Your task to perform on an android device: change notification settings in the gmail app Image 0: 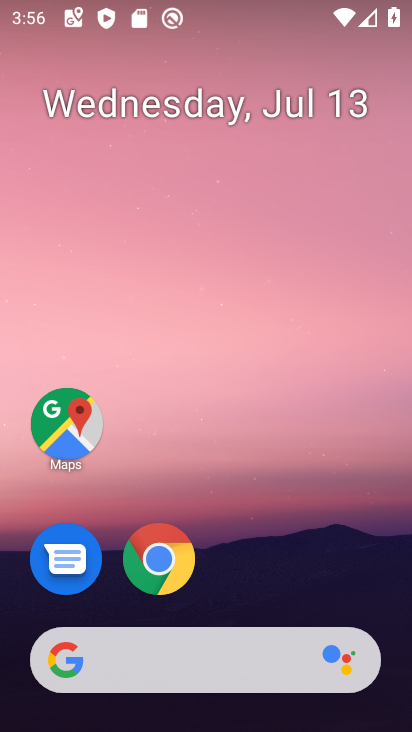
Step 0: drag from (371, 588) to (250, 114)
Your task to perform on an android device: change notification settings in the gmail app Image 1: 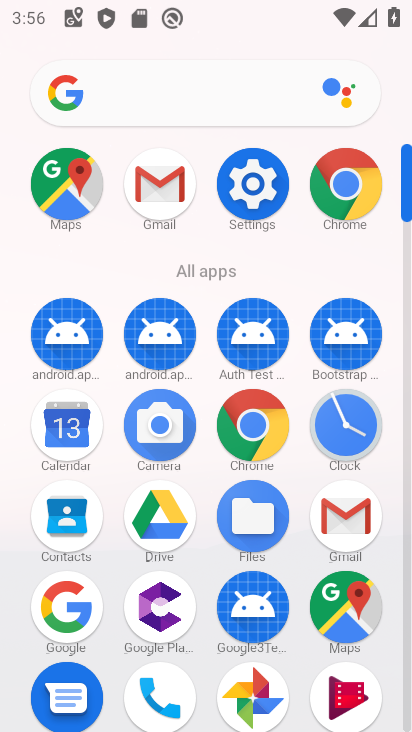
Step 1: click (147, 186)
Your task to perform on an android device: change notification settings in the gmail app Image 2: 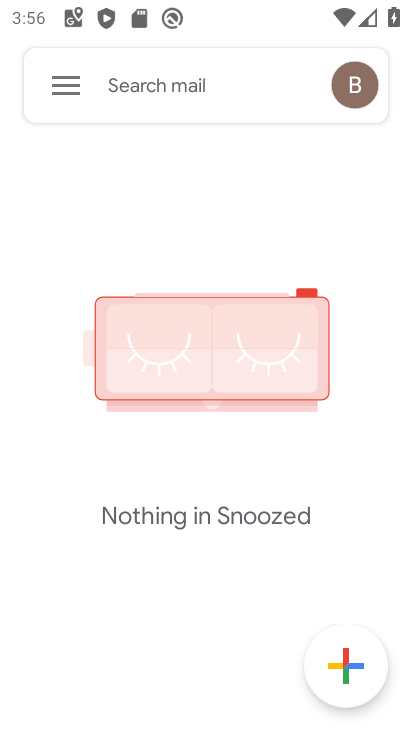
Step 2: click (63, 73)
Your task to perform on an android device: change notification settings in the gmail app Image 3: 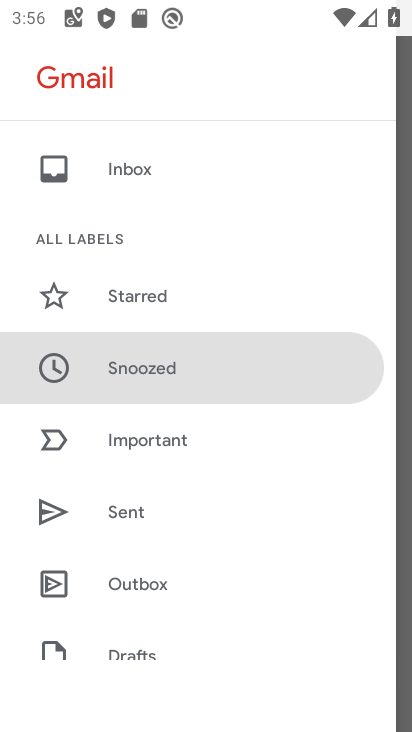
Step 3: drag from (227, 602) to (185, 238)
Your task to perform on an android device: change notification settings in the gmail app Image 4: 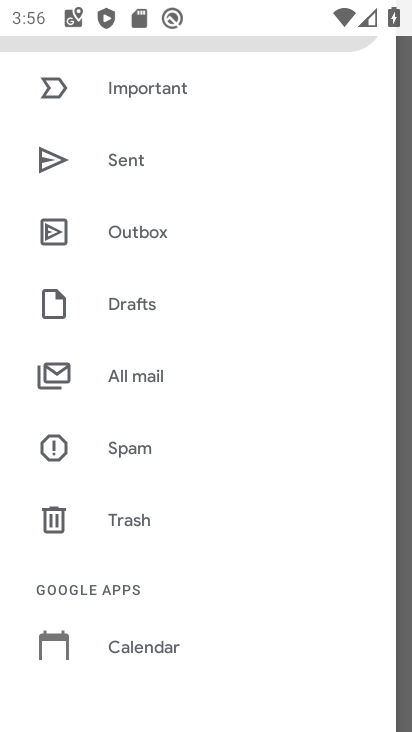
Step 4: drag from (199, 614) to (207, 287)
Your task to perform on an android device: change notification settings in the gmail app Image 5: 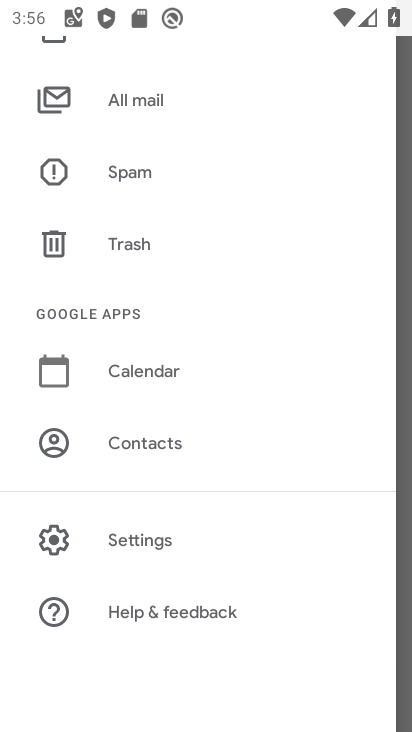
Step 5: click (176, 537)
Your task to perform on an android device: change notification settings in the gmail app Image 6: 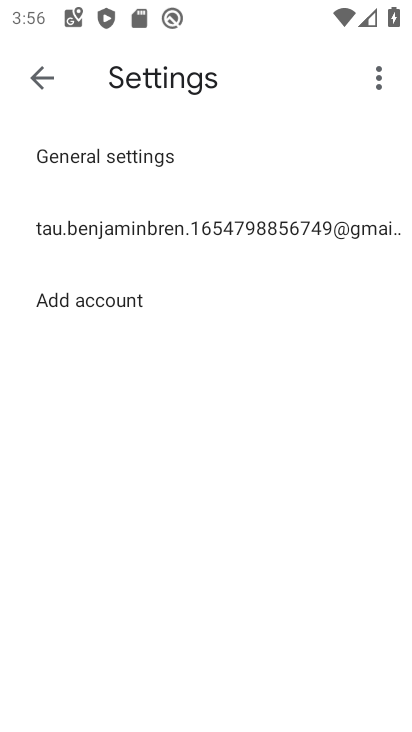
Step 6: click (181, 225)
Your task to perform on an android device: change notification settings in the gmail app Image 7: 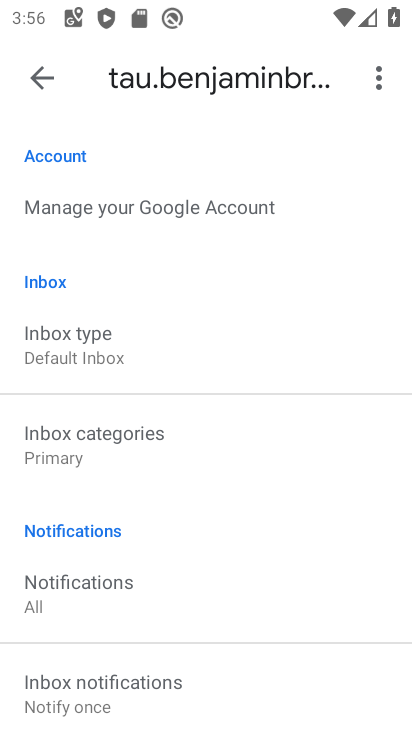
Step 7: drag from (193, 598) to (137, 143)
Your task to perform on an android device: change notification settings in the gmail app Image 8: 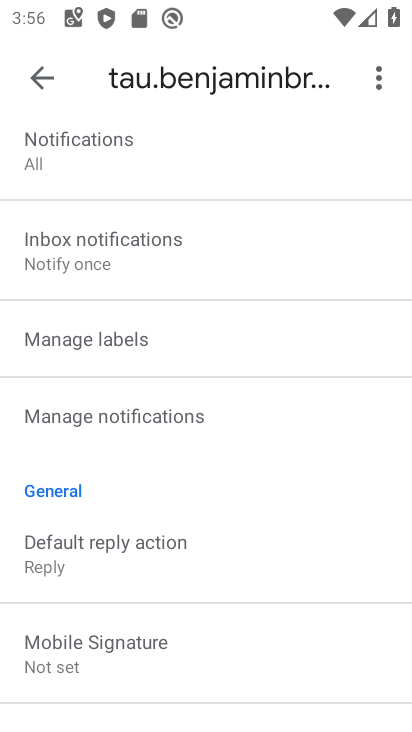
Step 8: click (165, 419)
Your task to perform on an android device: change notification settings in the gmail app Image 9: 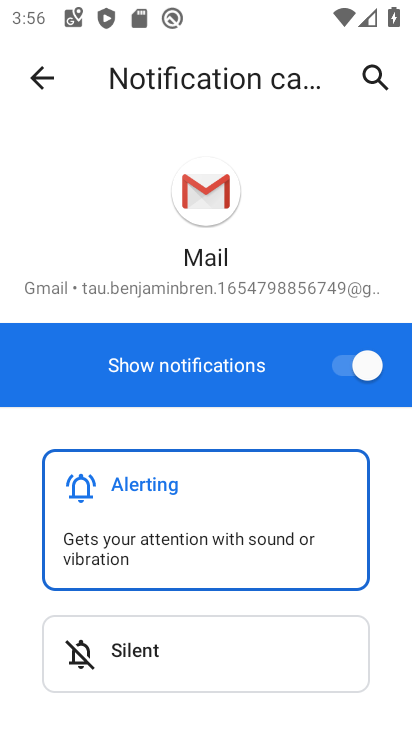
Step 9: drag from (386, 653) to (274, 341)
Your task to perform on an android device: change notification settings in the gmail app Image 10: 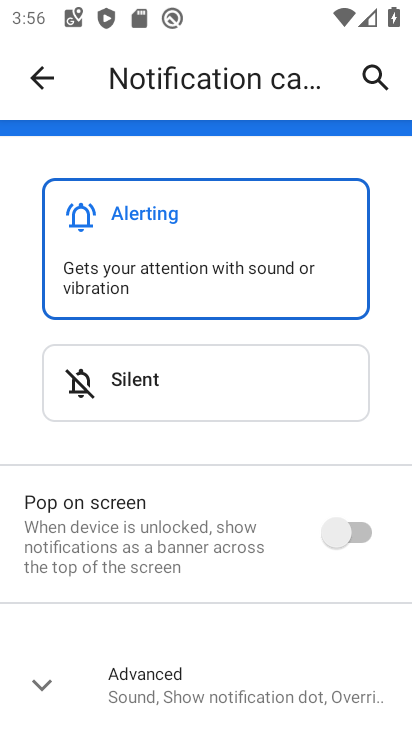
Step 10: click (273, 344)
Your task to perform on an android device: change notification settings in the gmail app Image 11: 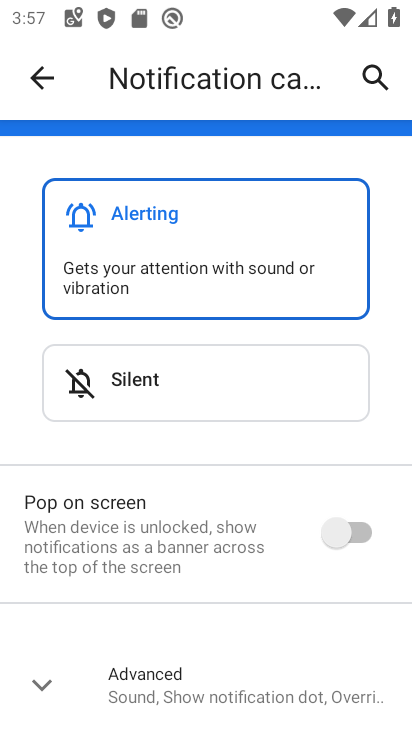
Step 11: click (148, 389)
Your task to perform on an android device: change notification settings in the gmail app Image 12: 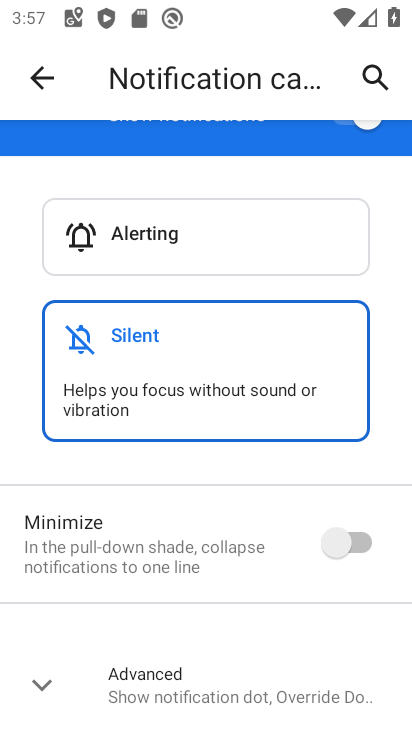
Step 12: click (368, 550)
Your task to perform on an android device: change notification settings in the gmail app Image 13: 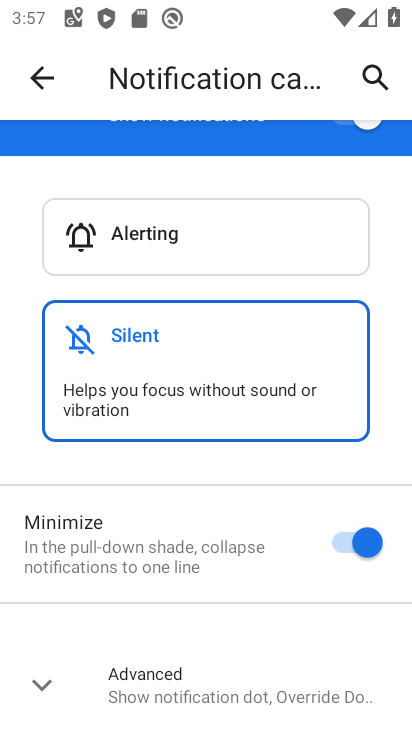
Step 13: task complete